Your task to perform on an android device: toggle translation in the chrome app Image 0: 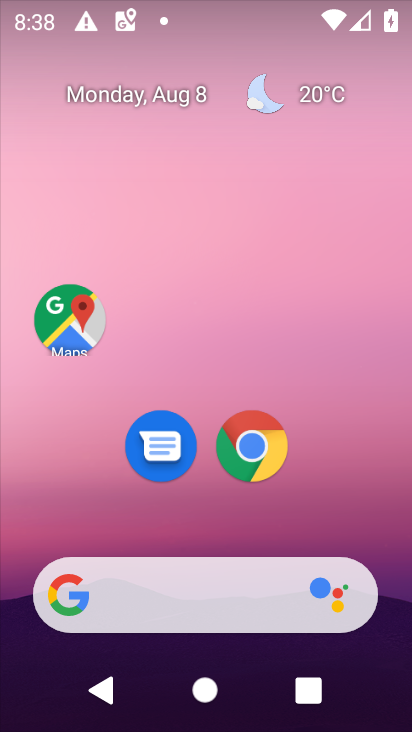
Step 0: click (251, 446)
Your task to perform on an android device: toggle translation in the chrome app Image 1: 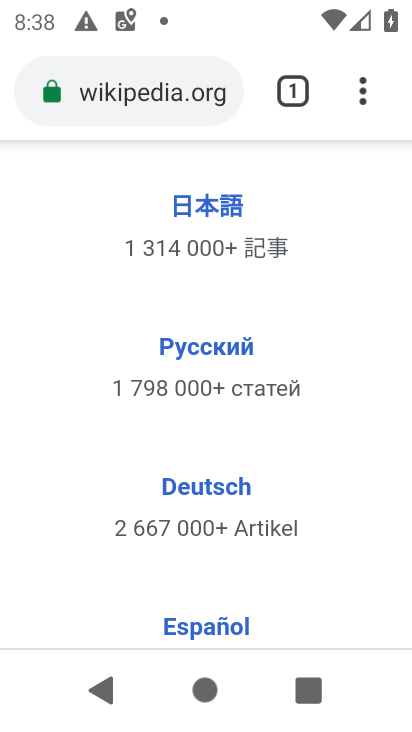
Step 1: click (351, 101)
Your task to perform on an android device: toggle translation in the chrome app Image 2: 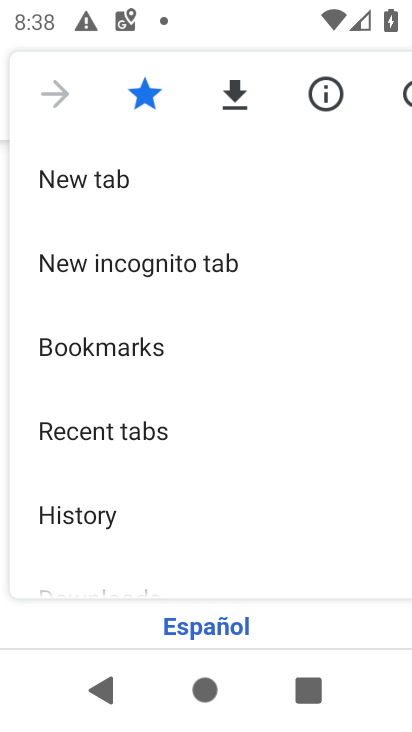
Step 2: drag from (221, 572) to (240, 156)
Your task to perform on an android device: toggle translation in the chrome app Image 3: 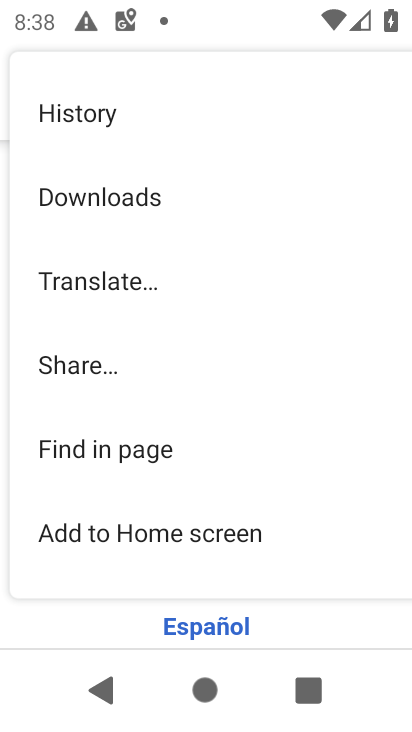
Step 3: drag from (288, 540) to (235, 109)
Your task to perform on an android device: toggle translation in the chrome app Image 4: 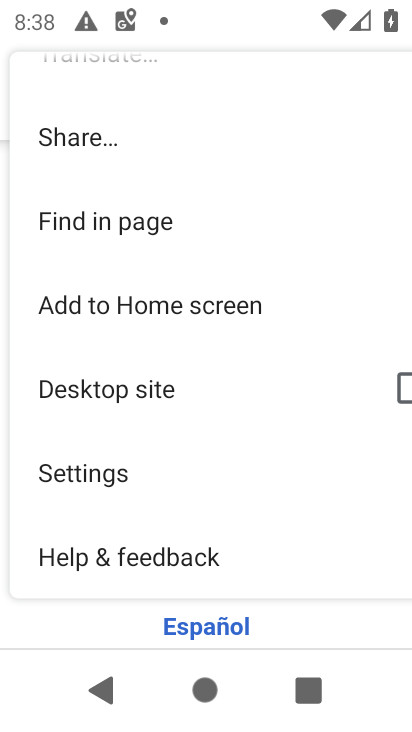
Step 4: click (77, 475)
Your task to perform on an android device: toggle translation in the chrome app Image 5: 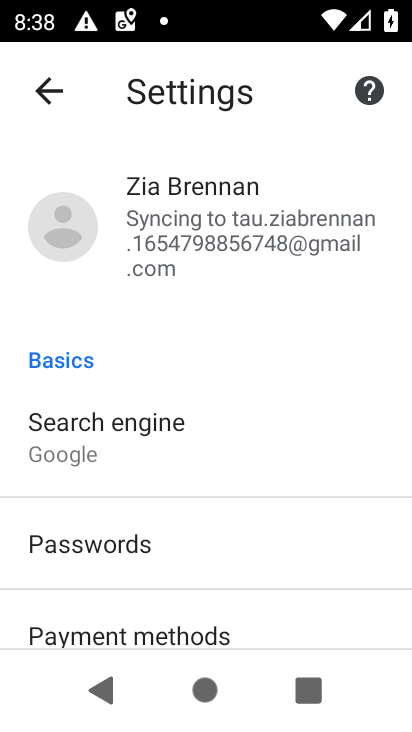
Step 5: drag from (259, 589) to (262, 136)
Your task to perform on an android device: toggle translation in the chrome app Image 6: 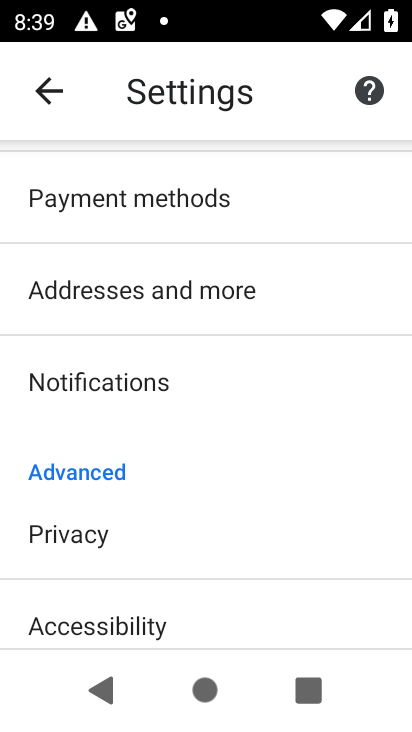
Step 6: drag from (245, 594) to (265, 102)
Your task to perform on an android device: toggle translation in the chrome app Image 7: 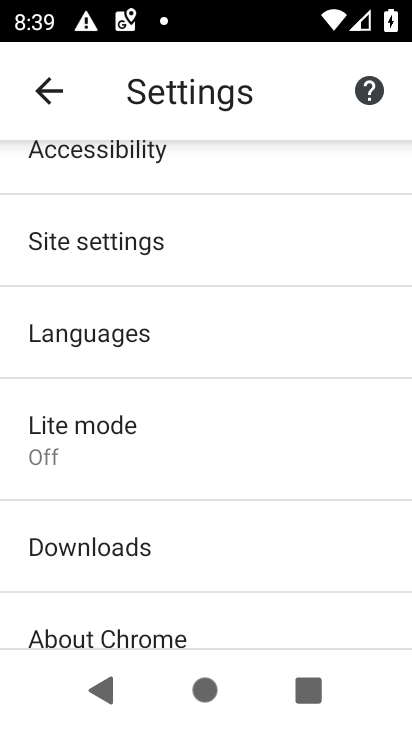
Step 7: click (81, 342)
Your task to perform on an android device: toggle translation in the chrome app Image 8: 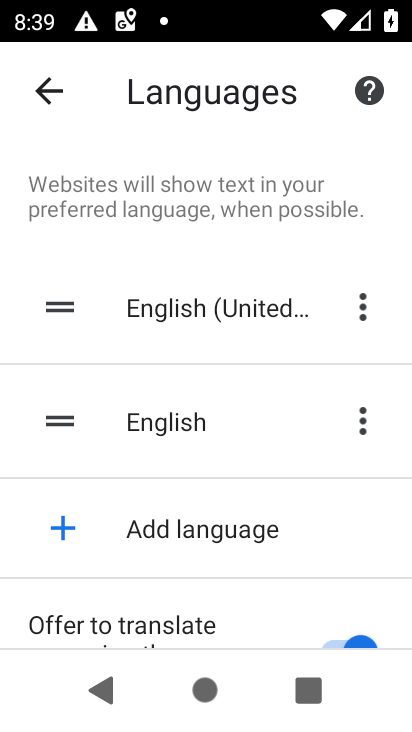
Step 8: drag from (263, 440) to (281, 254)
Your task to perform on an android device: toggle translation in the chrome app Image 9: 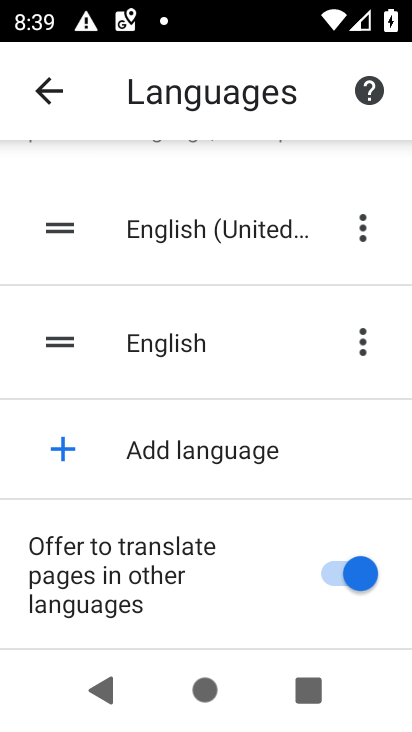
Step 9: click (325, 579)
Your task to perform on an android device: toggle translation in the chrome app Image 10: 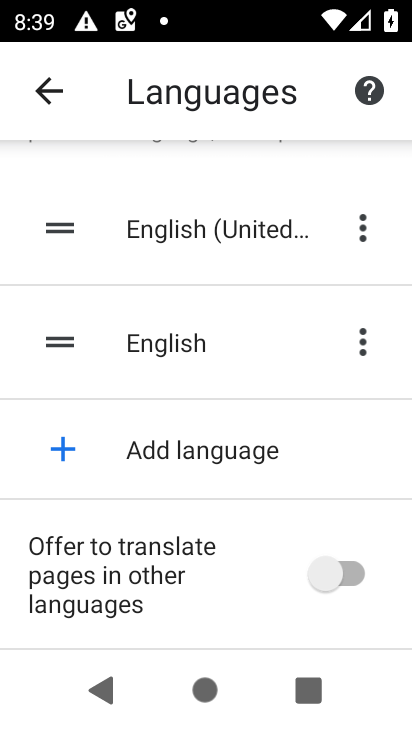
Step 10: task complete